Your task to perform on an android device: change text size in settings app Image 0: 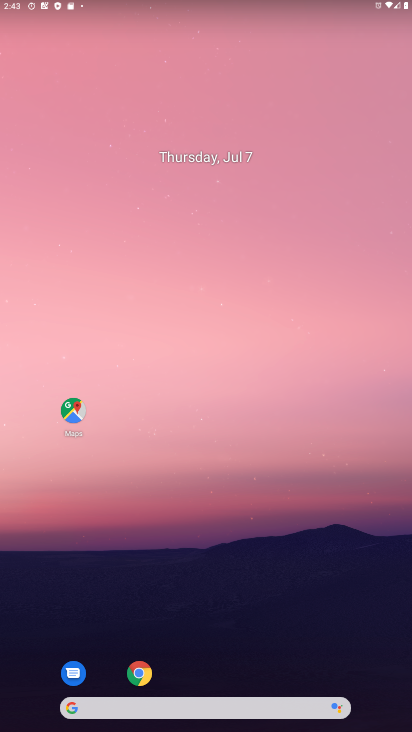
Step 0: drag from (207, 689) to (189, 61)
Your task to perform on an android device: change text size in settings app Image 1: 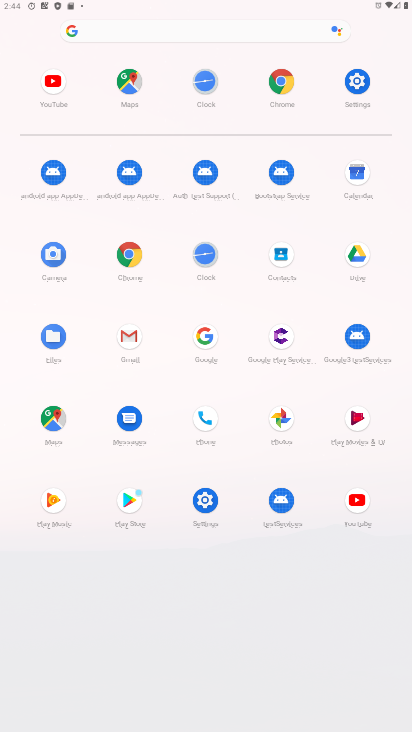
Step 1: click (199, 502)
Your task to perform on an android device: change text size in settings app Image 2: 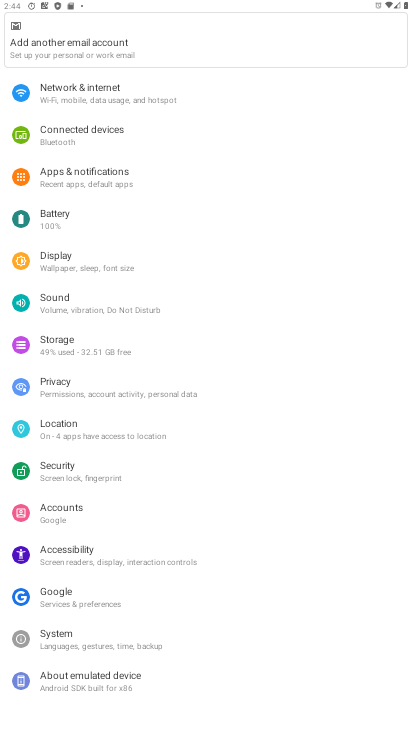
Step 2: click (45, 258)
Your task to perform on an android device: change text size in settings app Image 3: 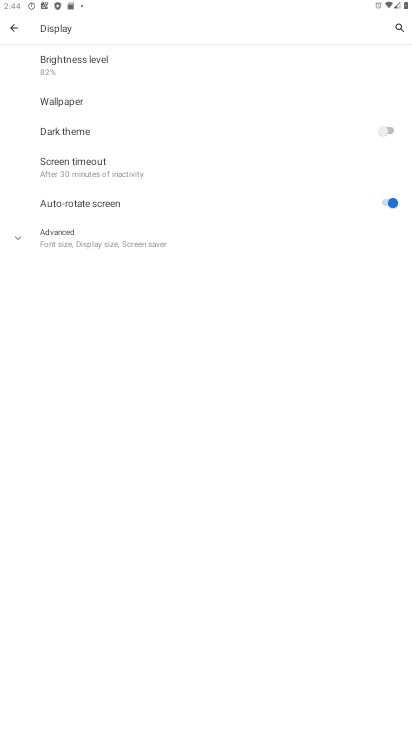
Step 3: press home button
Your task to perform on an android device: change text size in settings app Image 4: 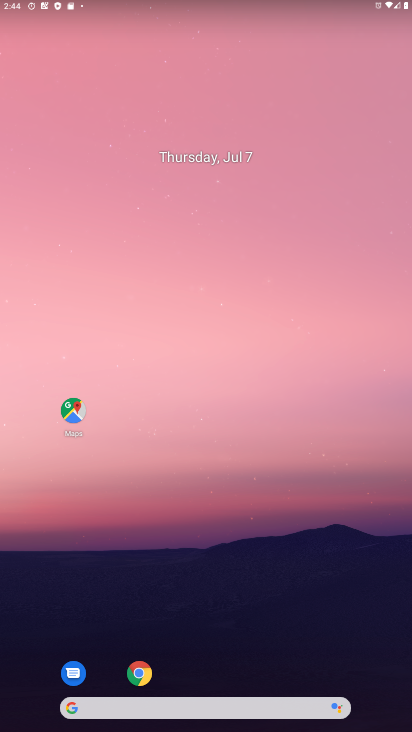
Step 4: drag from (230, 679) to (177, 58)
Your task to perform on an android device: change text size in settings app Image 5: 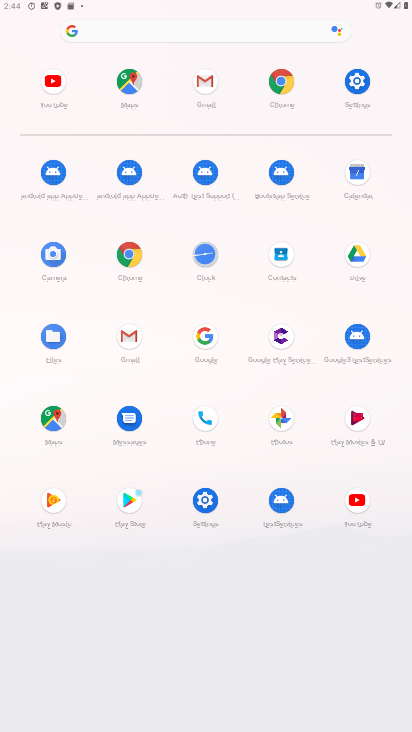
Step 5: click (203, 496)
Your task to perform on an android device: change text size in settings app Image 6: 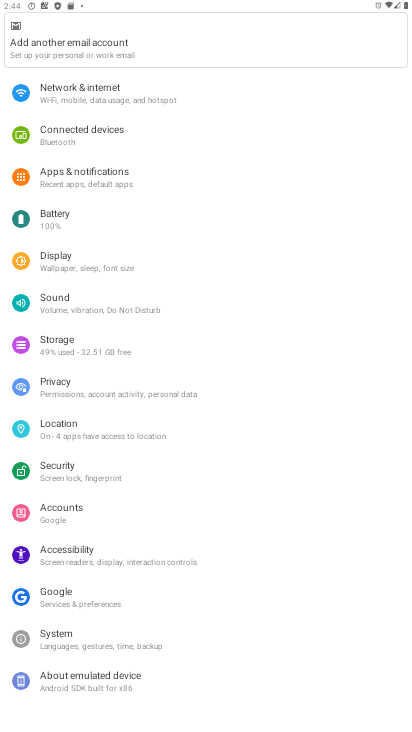
Step 6: click (43, 269)
Your task to perform on an android device: change text size in settings app Image 7: 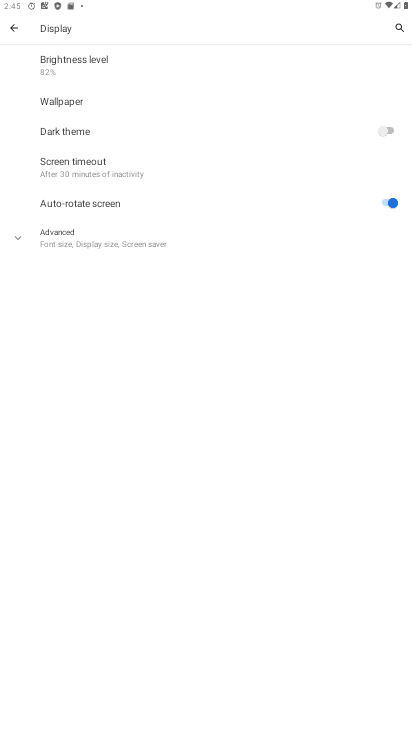
Step 7: click (72, 229)
Your task to perform on an android device: change text size in settings app Image 8: 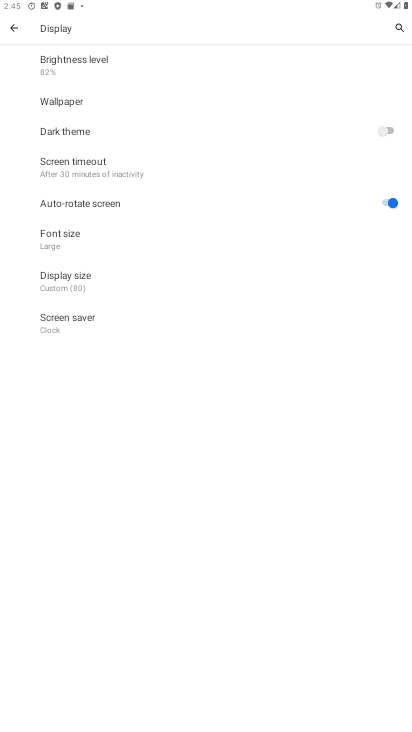
Step 8: click (58, 233)
Your task to perform on an android device: change text size in settings app Image 9: 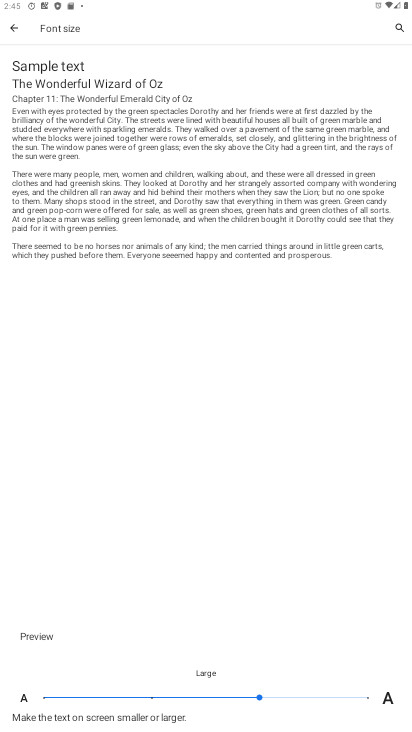
Step 9: click (361, 696)
Your task to perform on an android device: change text size in settings app Image 10: 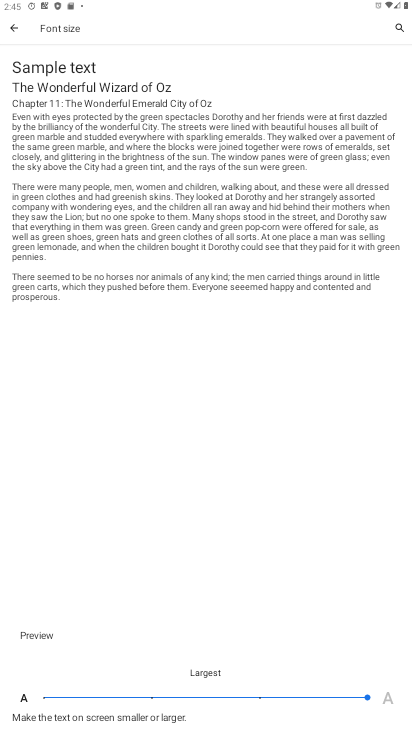
Step 10: task complete